Your task to perform on an android device: Open calendar and show me the third week of next month Image 0: 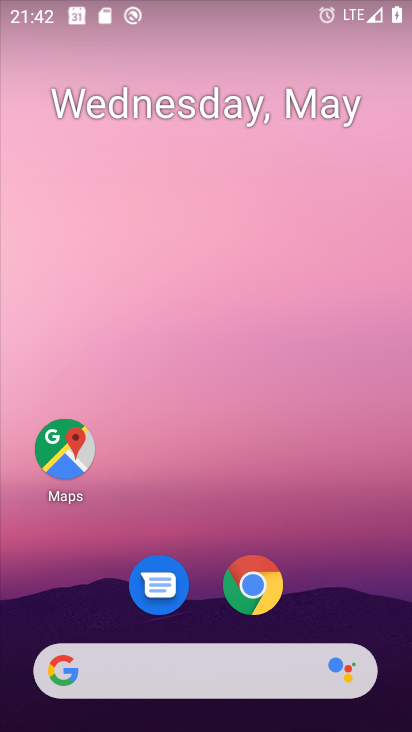
Step 0: drag from (303, 502) to (241, 2)
Your task to perform on an android device: Open calendar and show me the third week of next month Image 1: 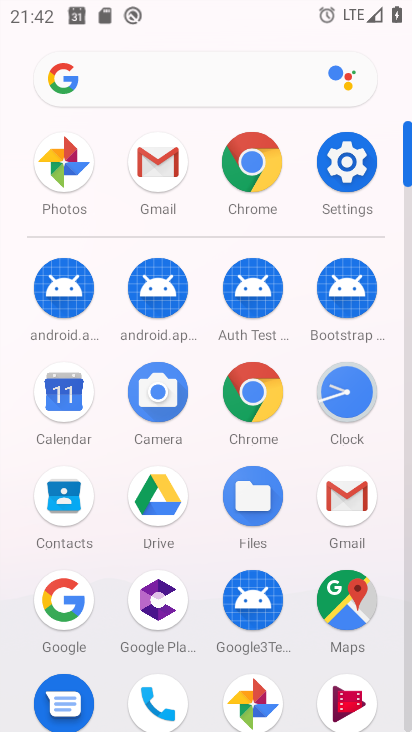
Step 1: click (77, 403)
Your task to perform on an android device: Open calendar and show me the third week of next month Image 2: 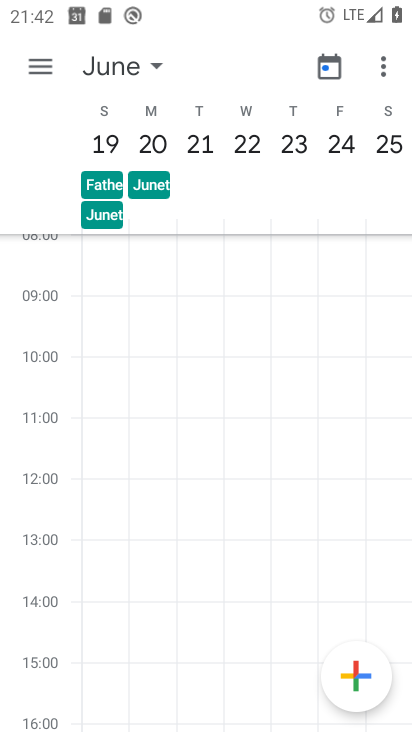
Step 2: task complete